Your task to perform on an android device: uninstall "Lyft - Rideshare, Bikes, Scooters & Transit" Image 0: 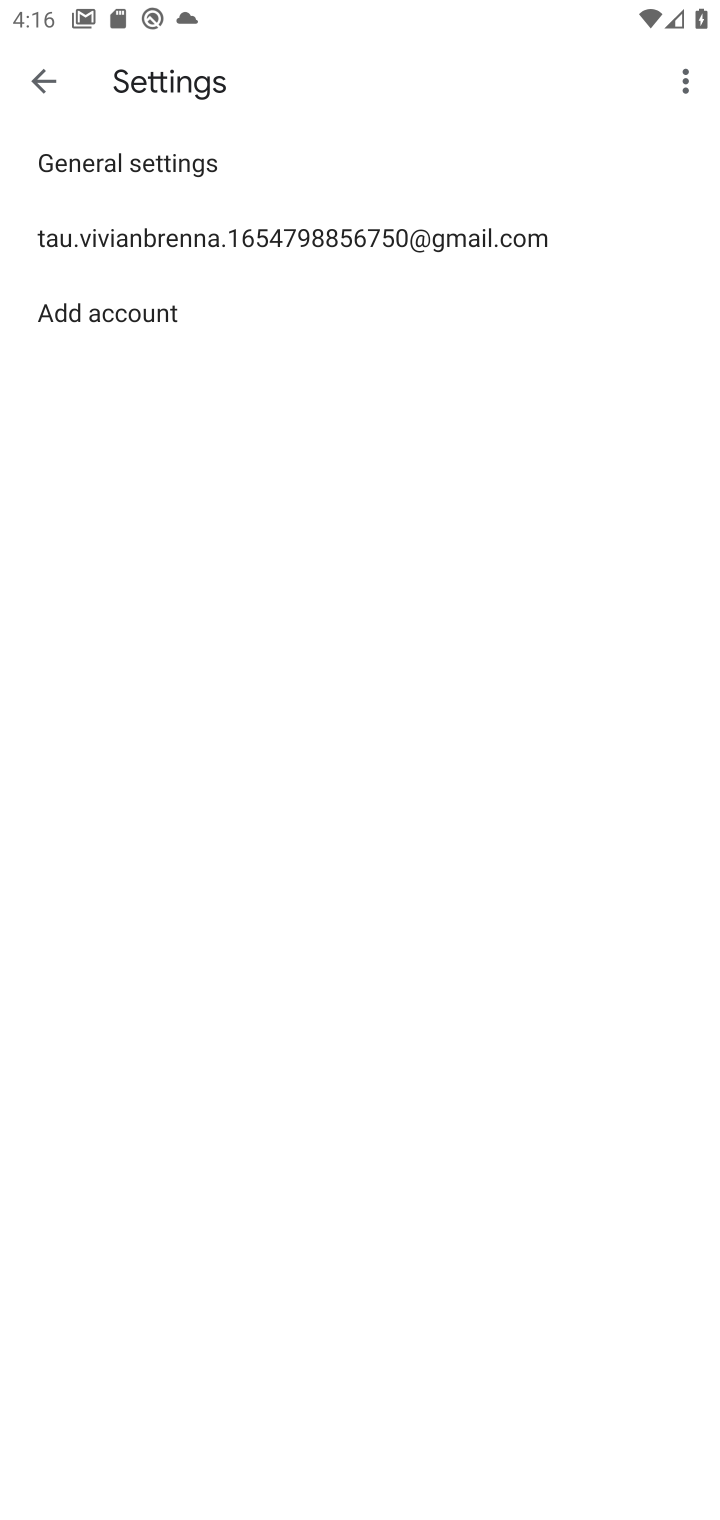
Step 0: press home button
Your task to perform on an android device: uninstall "Lyft - Rideshare, Bikes, Scooters & Transit" Image 1: 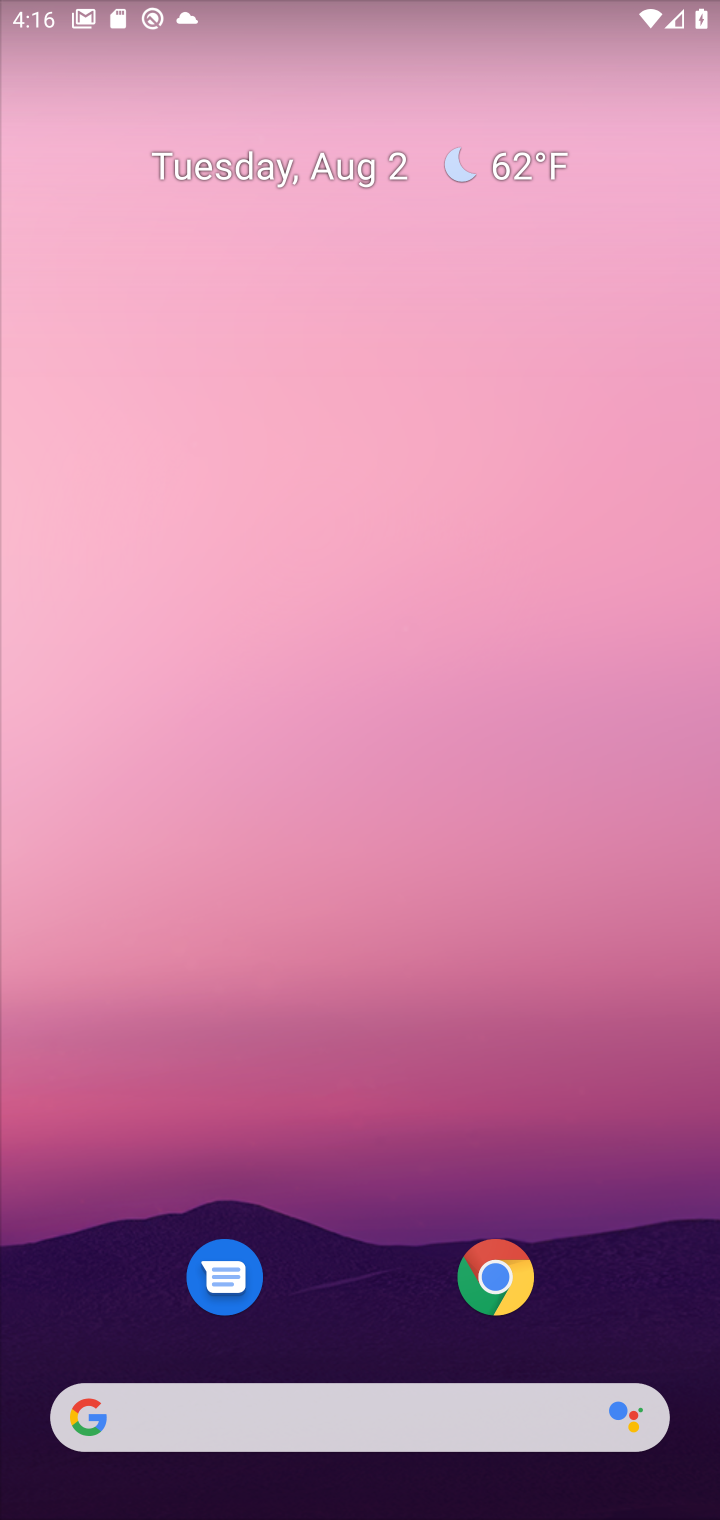
Step 1: drag from (602, 968) to (590, 28)
Your task to perform on an android device: uninstall "Lyft - Rideshare, Bikes, Scooters & Transit" Image 2: 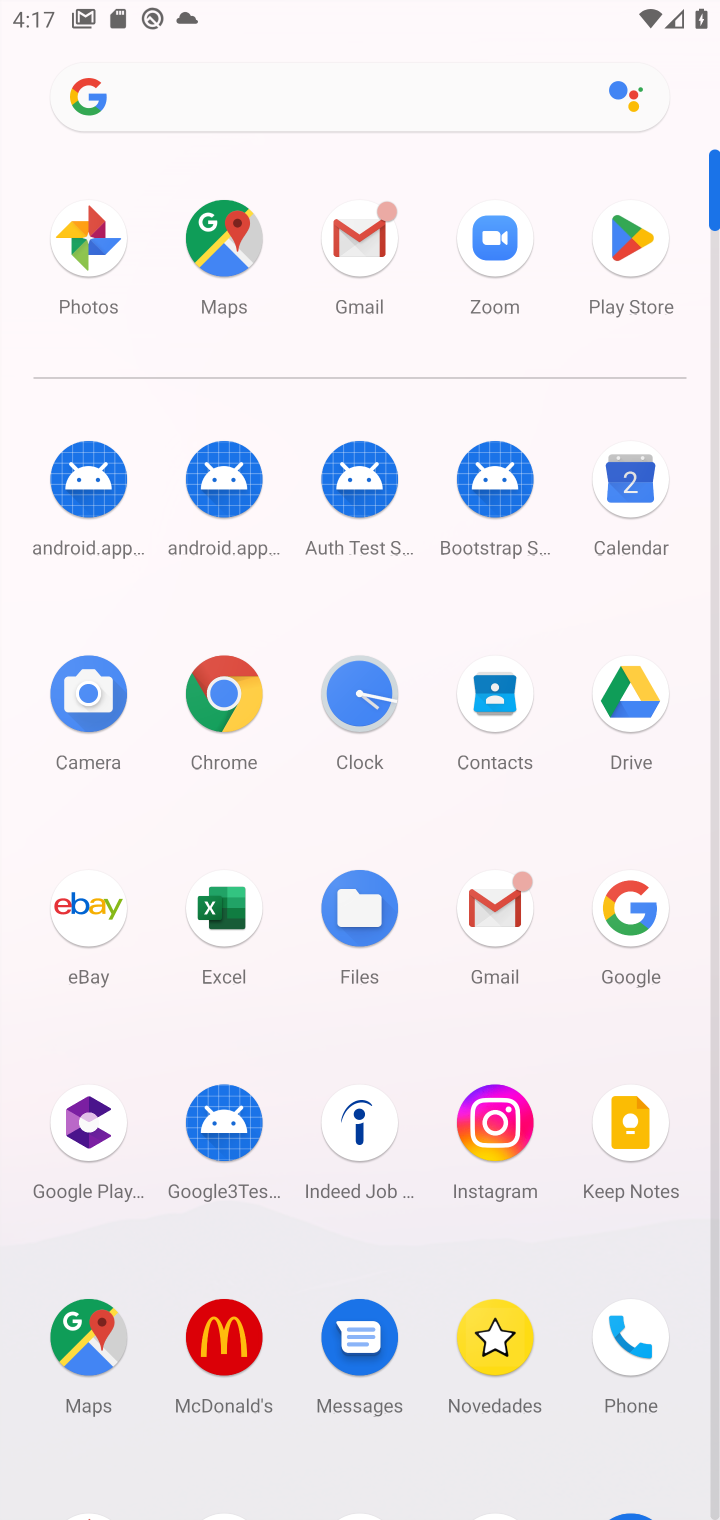
Step 2: drag from (439, 803) to (466, 233)
Your task to perform on an android device: uninstall "Lyft - Rideshare, Bikes, Scooters & Transit" Image 3: 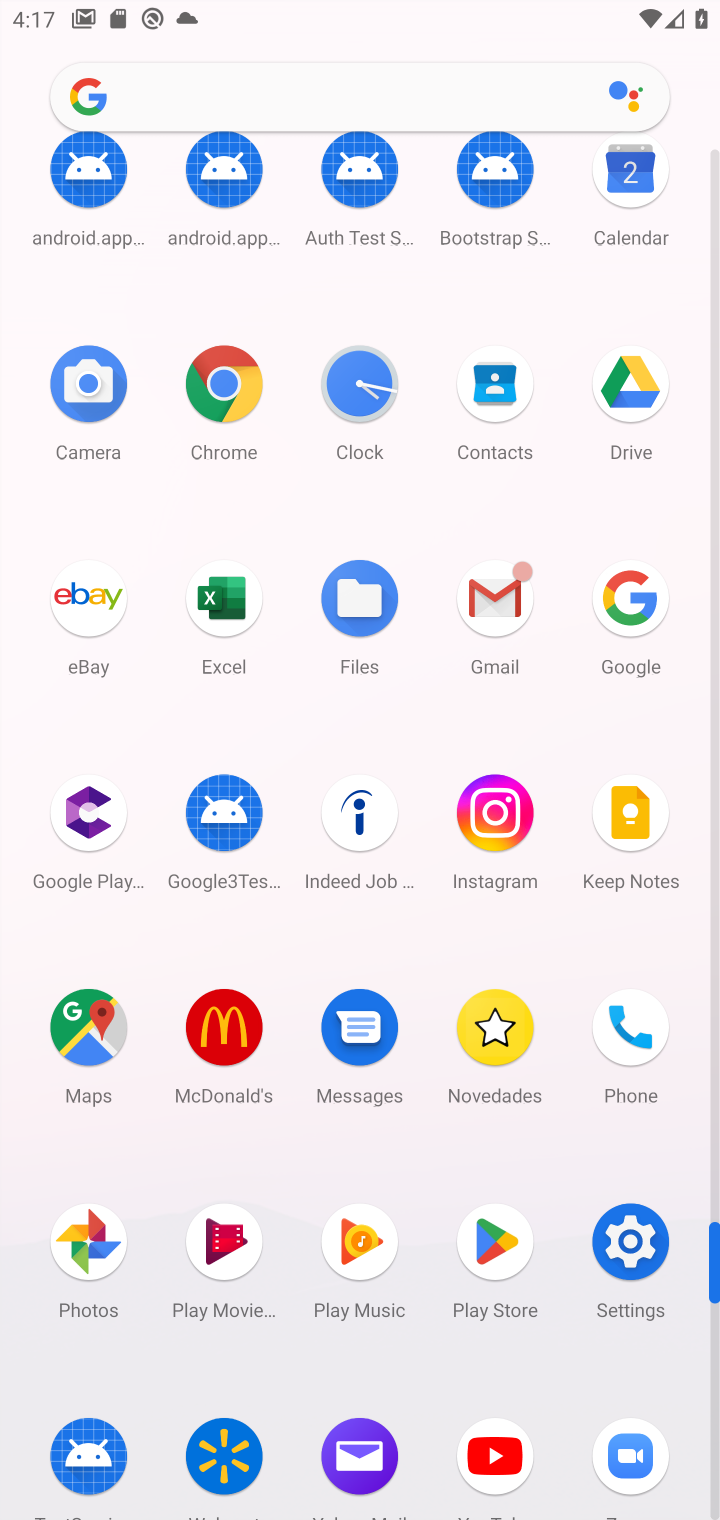
Step 3: click (503, 1224)
Your task to perform on an android device: uninstall "Lyft - Rideshare, Bikes, Scooters & Transit" Image 4: 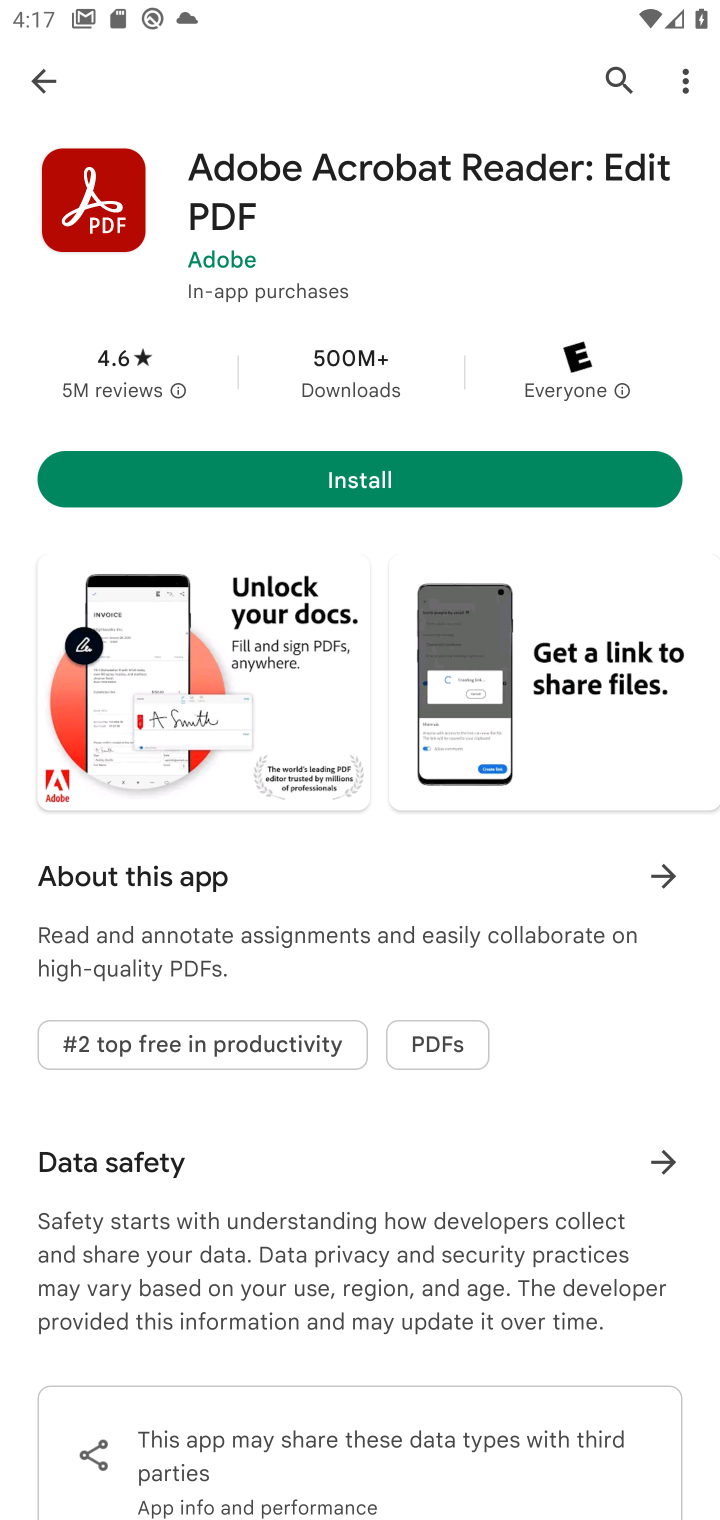
Step 4: click (618, 68)
Your task to perform on an android device: uninstall "Lyft - Rideshare, Bikes, Scooters & Transit" Image 5: 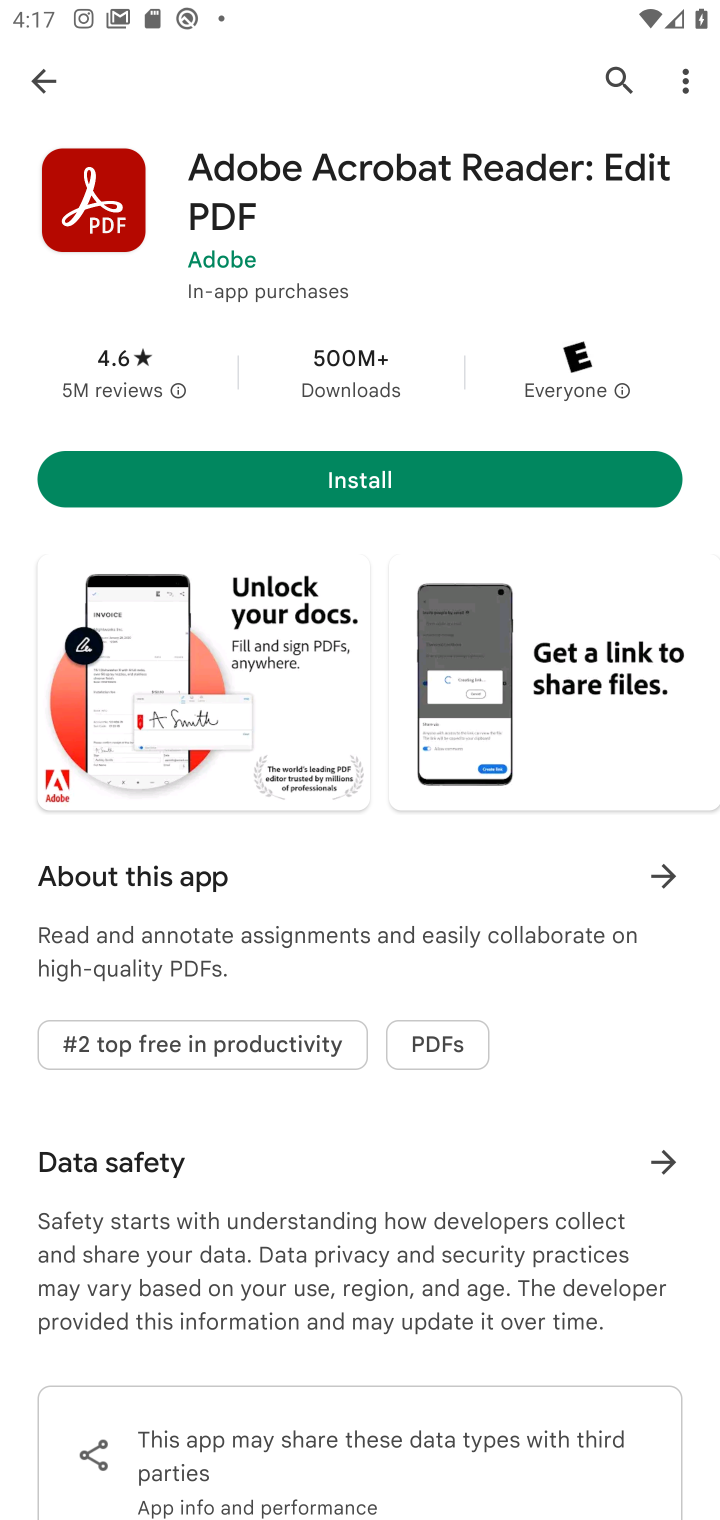
Step 5: click (613, 69)
Your task to perform on an android device: uninstall "Lyft - Rideshare, Bikes, Scooters & Transit" Image 6: 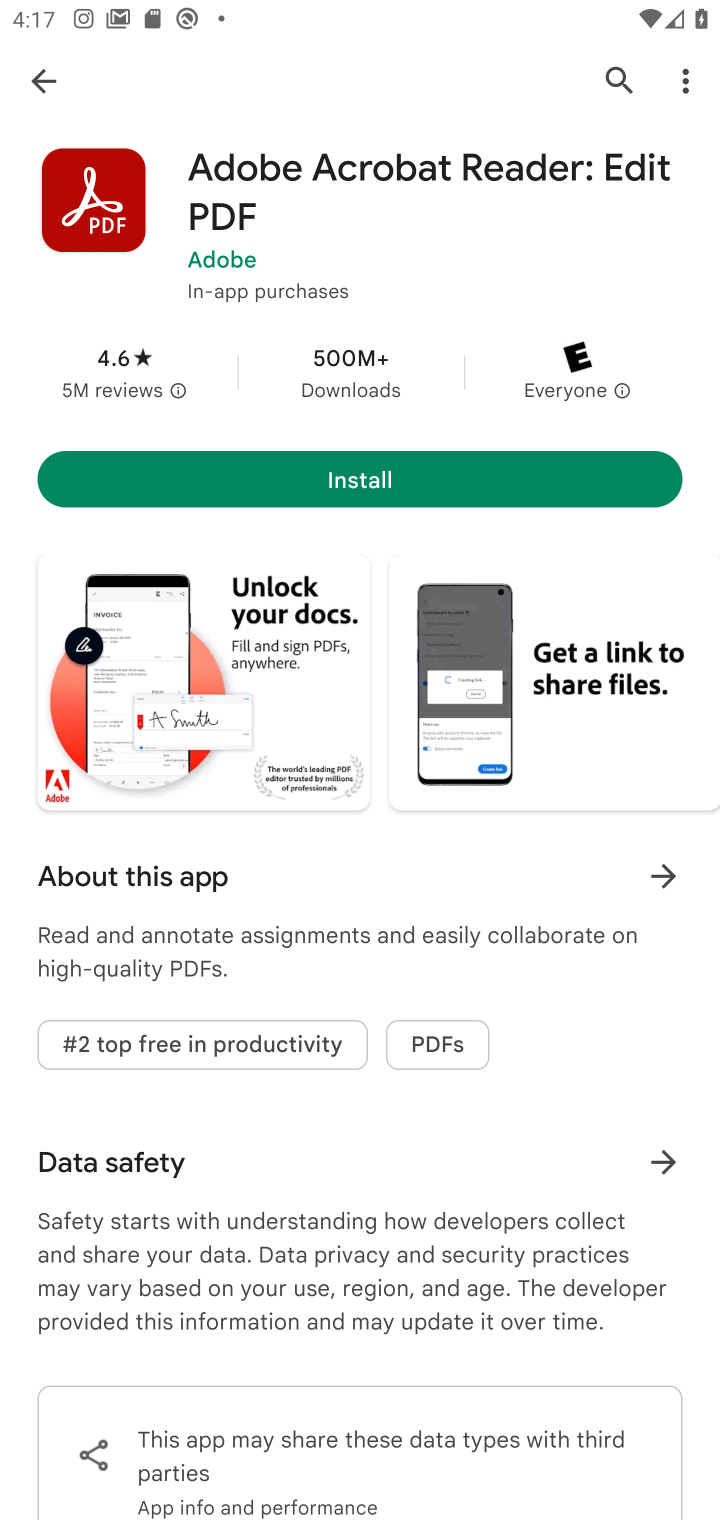
Step 6: press back button
Your task to perform on an android device: uninstall "Lyft - Rideshare, Bikes, Scooters & Transit" Image 7: 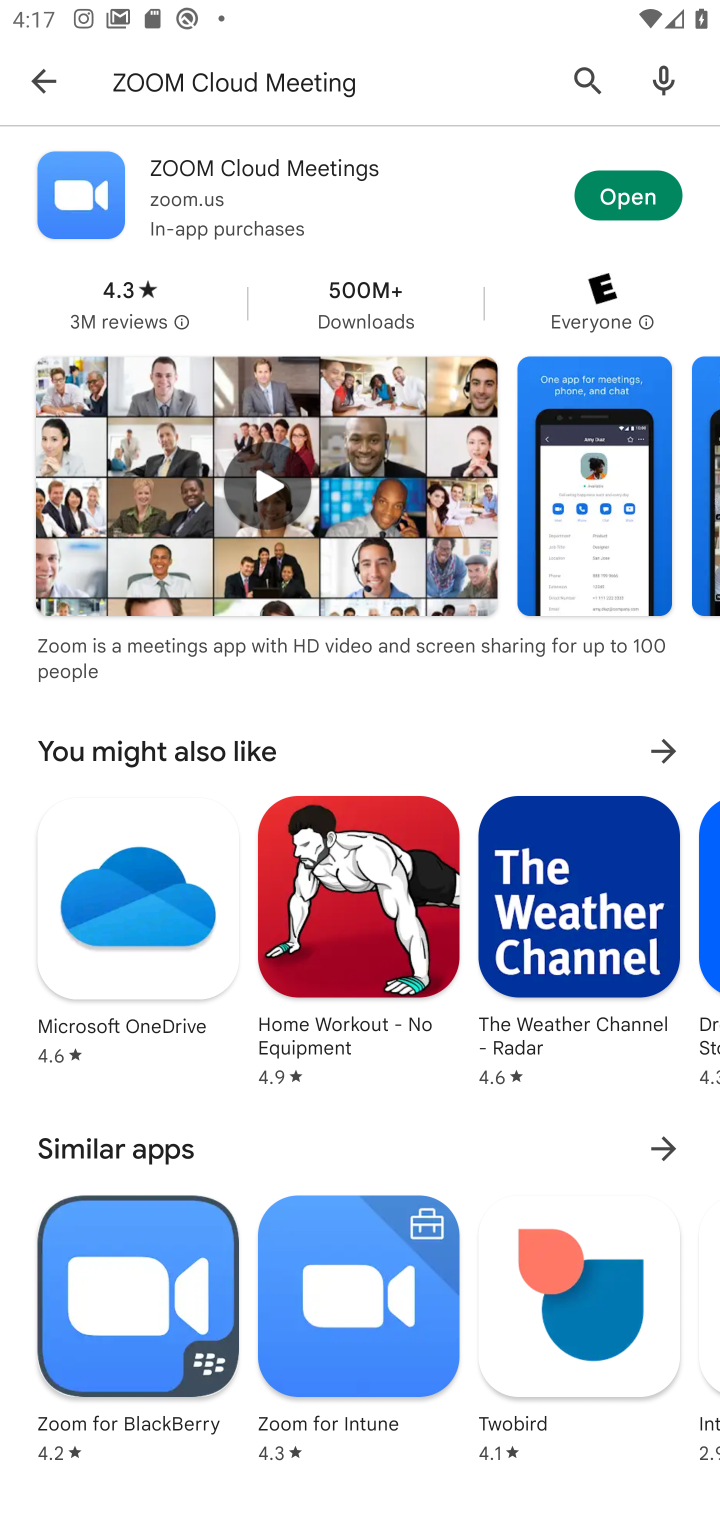
Step 7: click (312, 74)
Your task to perform on an android device: uninstall "Lyft - Rideshare, Bikes, Scooters & Transit" Image 8: 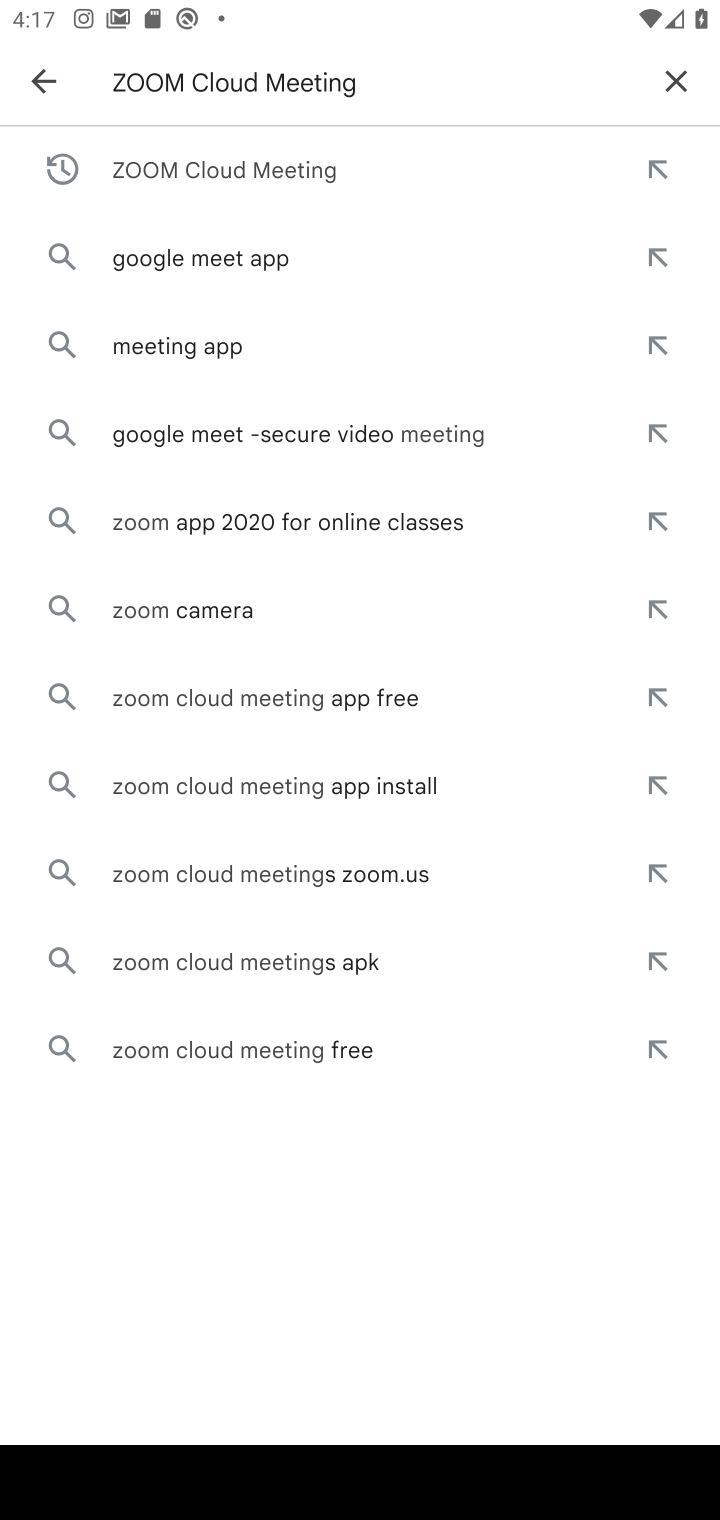
Step 8: click (688, 80)
Your task to perform on an android device: uninstall "Lyft - Rideshare, Bikes, Scooters & Transit" Image 9: 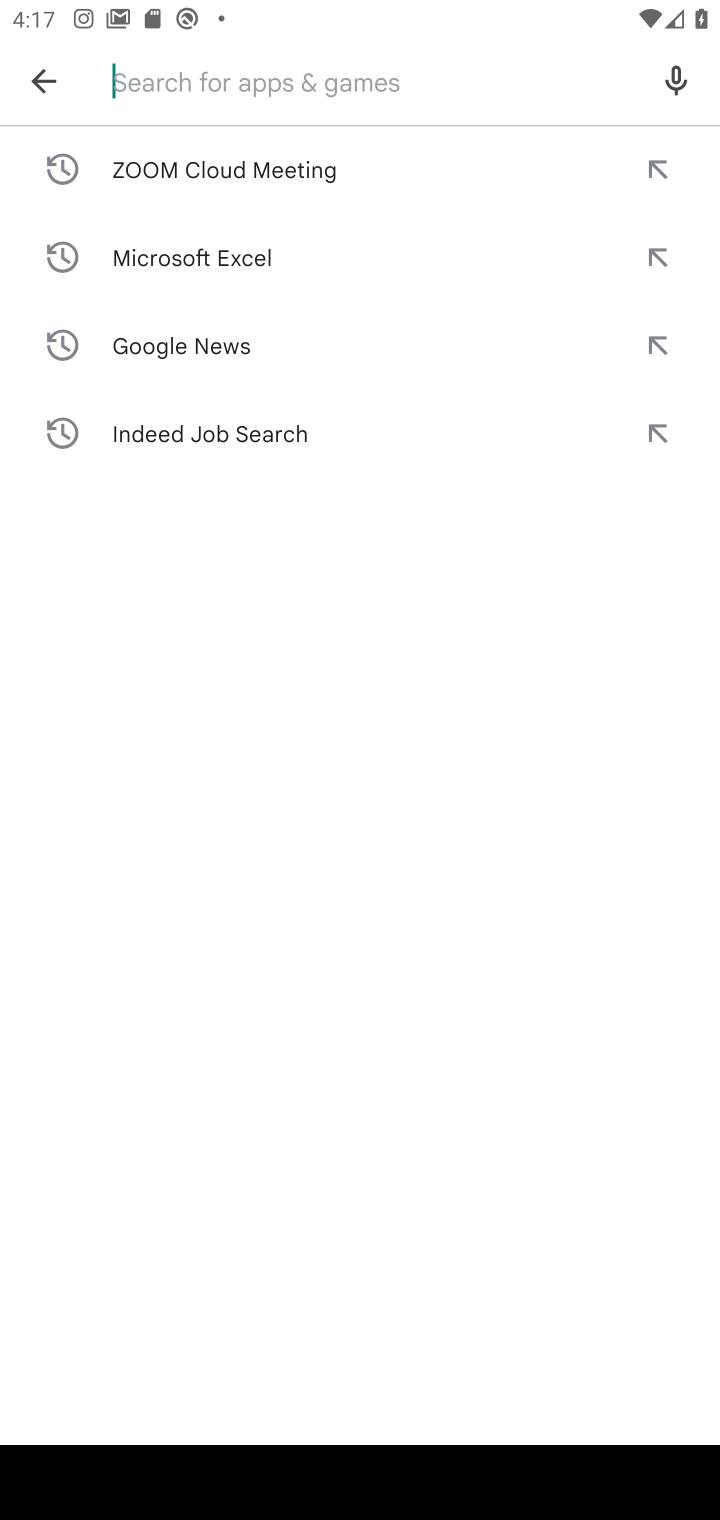
Step 9: type "Lyft - Rideshare, Bikes, Scooters & Transit"
Your task to perform on an android device: uninstall "Lyft - Rideshare, Bikes, Scooters & Transit" Image 10: 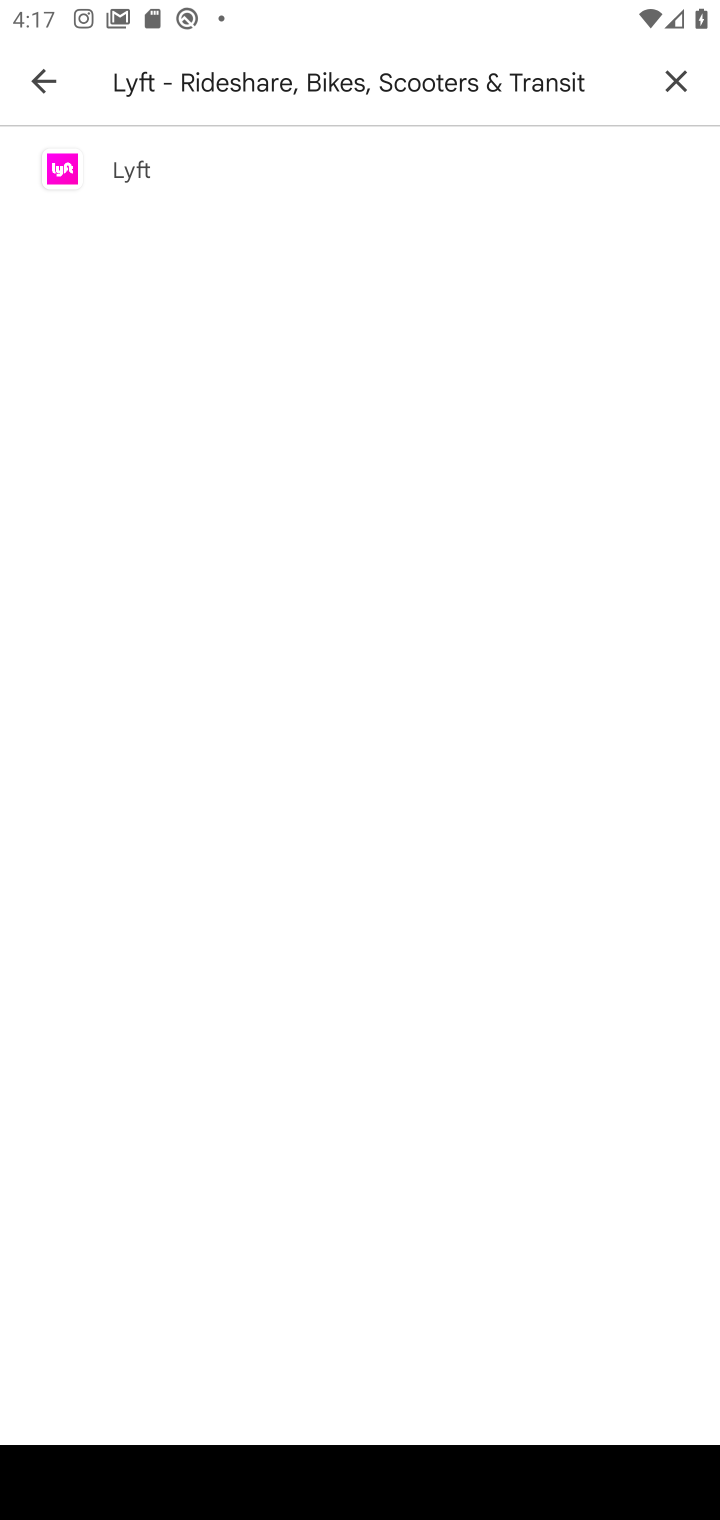
Step 10: click (105, 168)
Your task to perform on an android device: uninstall "Lyft - Rideshare, Bikes, Scooters & Transit" Image 11: 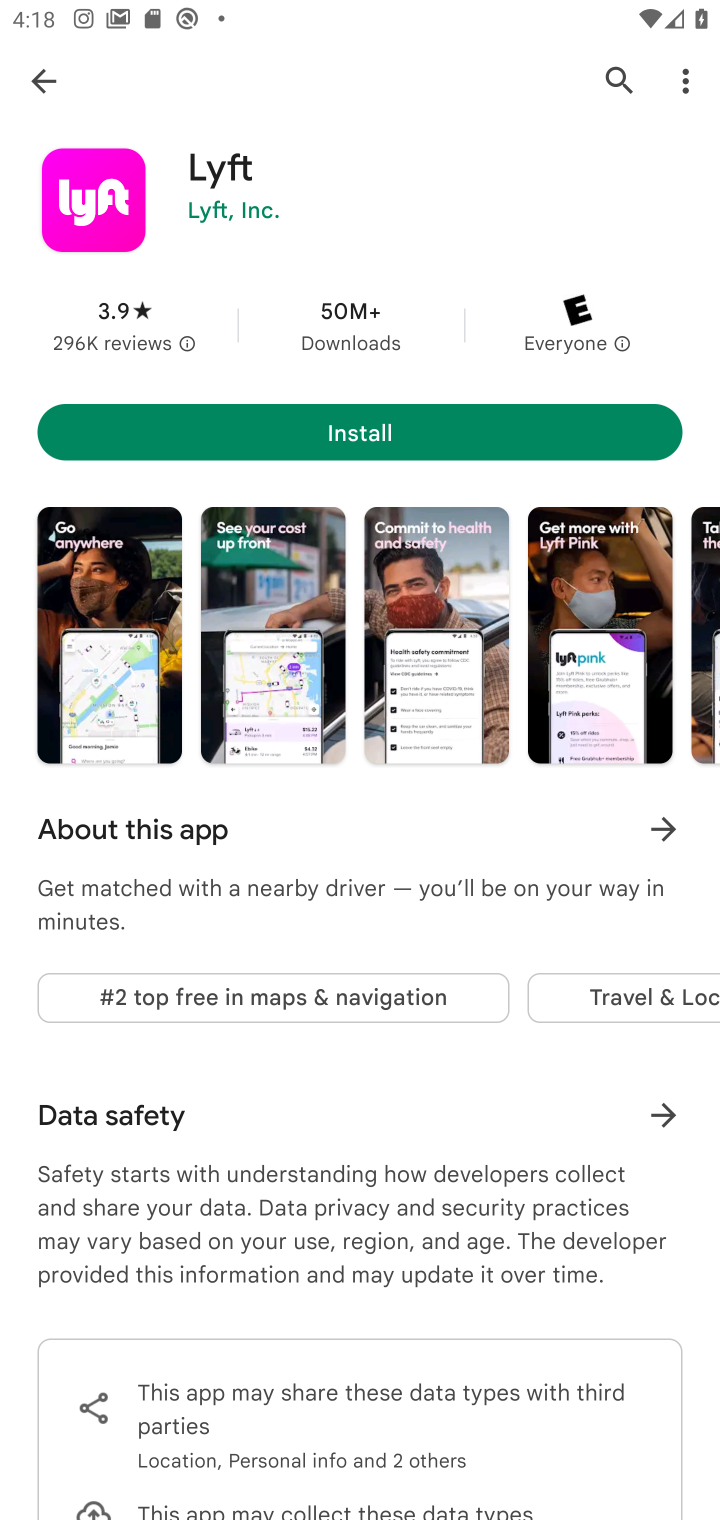
Step 11: task complete